Your task to perform on an android device: turn on the 24-hour format for clock Image 0: 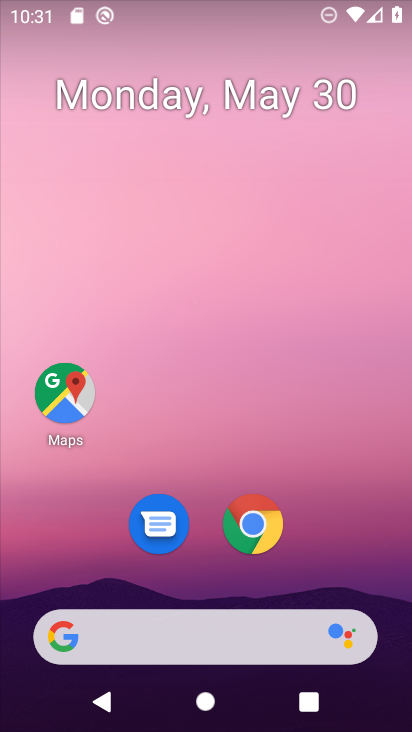
Step 0: drag from (282, 549) to (326, 71)
Your task to perform on an android device: turn on the 24-hour format for clock Image 1: 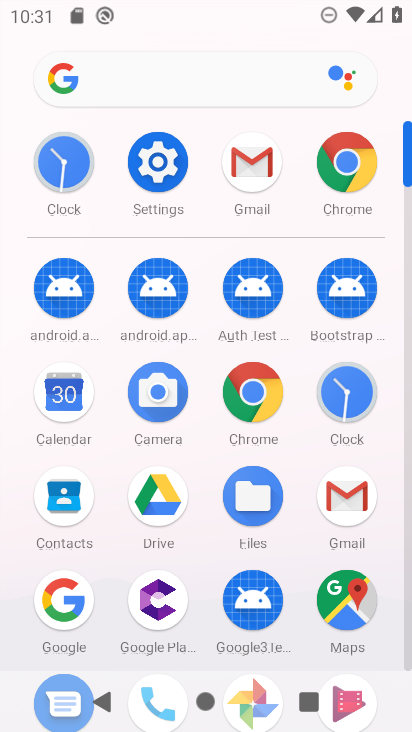
Step 1: click (73, 167)
Your task to perform on an android device: turn on the 24-hour format for clock Image 2: 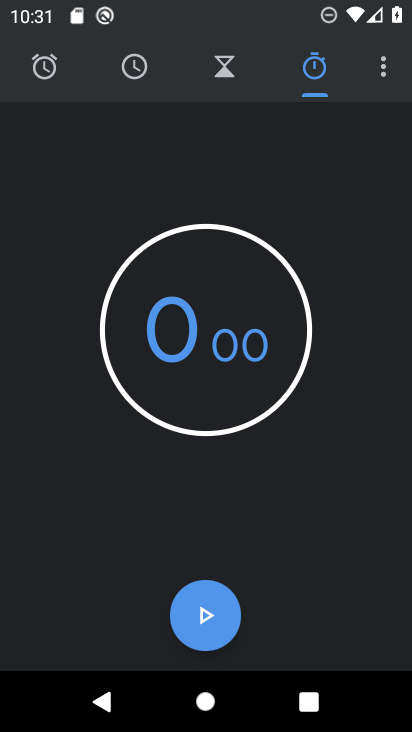
Step 2: click (383, 72)
Your task to perform on an android device: turn on the 24-hour format for clock Image 3: 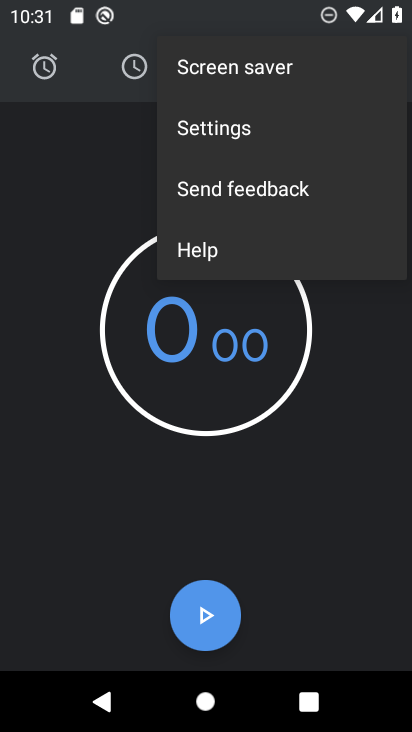
Step 3: click (317, 132)
Your task to perform on an android device: turn on the 24-hour format for clock Image 4: 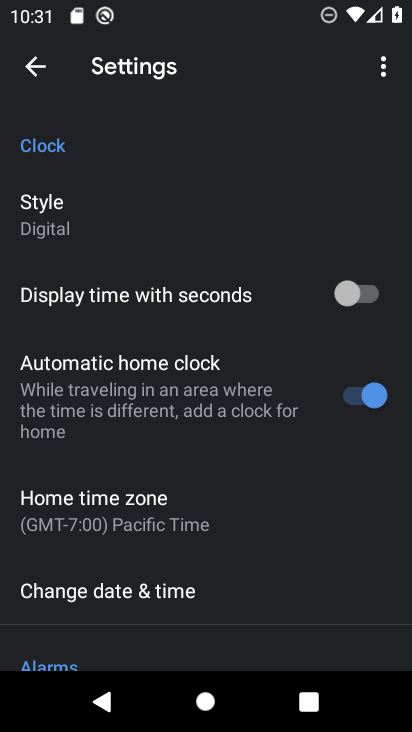
Step 4: click (312, 594)
Your task to perform on an android device: turn on the 24-hour format for clock Image 5: 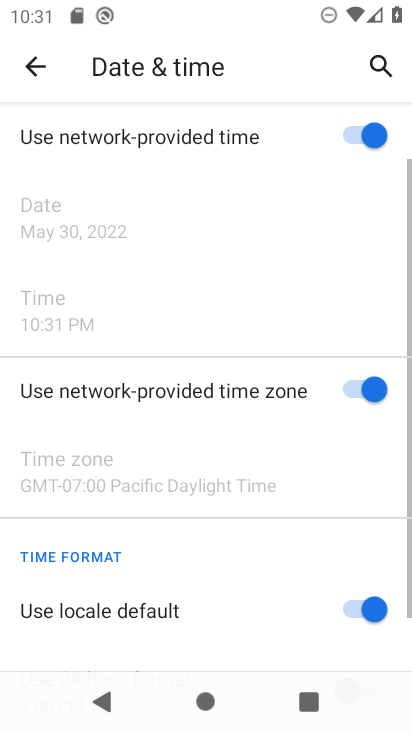
Step 5: drag from (321, 531) to (313, 149)
Your task to perform on an android device: turn on the 24-hour format for clock Image 6: 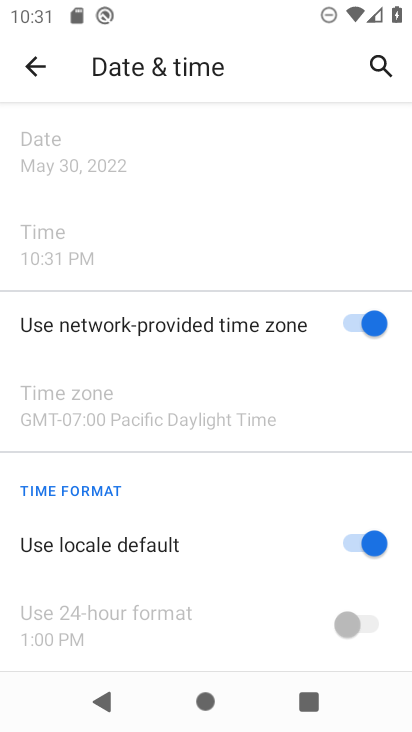
Step 6: click (359, 531)
Your task to perform on an android device: turn on the 24-hour format for clock Image 7: 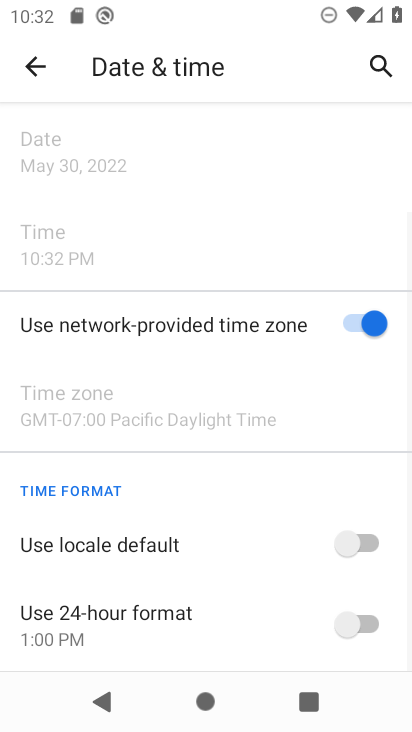
Step 7: click (372, 623)
Your task to perform on an android device: turn on the 24-hour format for clock Image 8: 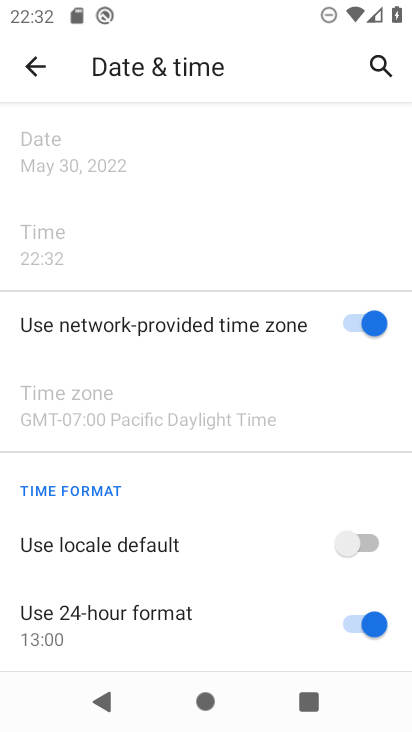
Step 8: task complete